Your task to perform on an android device: check data usage Image 0: 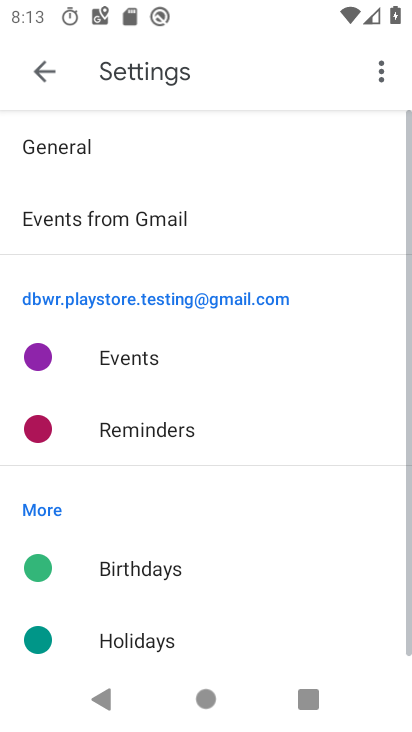
Step 0: press home button
Your task to perform on an android device: check data usage Image 1: 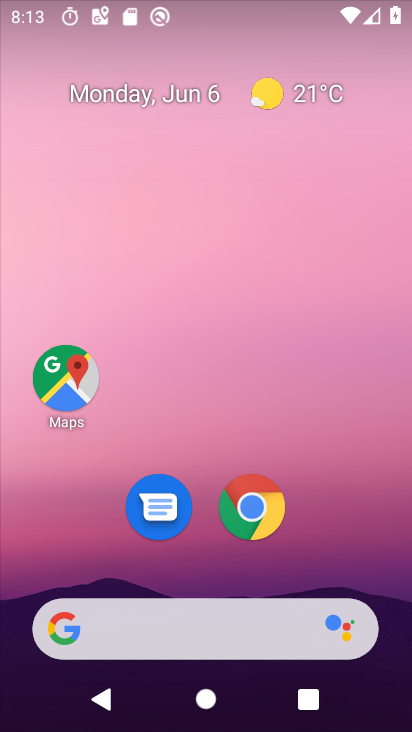
Step 1: drag from (385, 14) to (93, 714)
Your task to perform on an android device: check data usage Image 2: 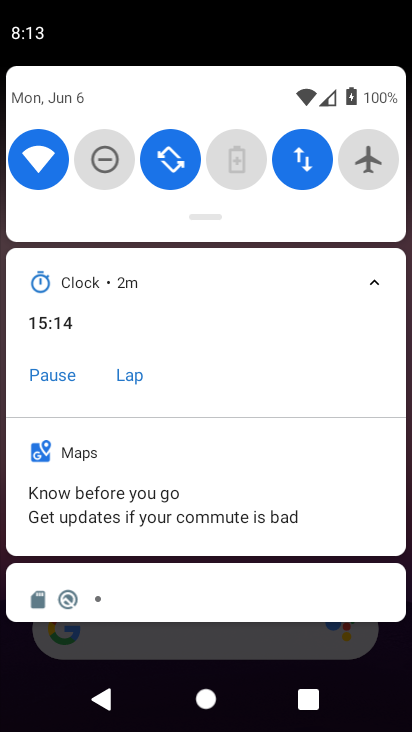
Step 2: drag from (36, 172) to (147, 448)
Your task to perform on an android device: check data usage Image 3: 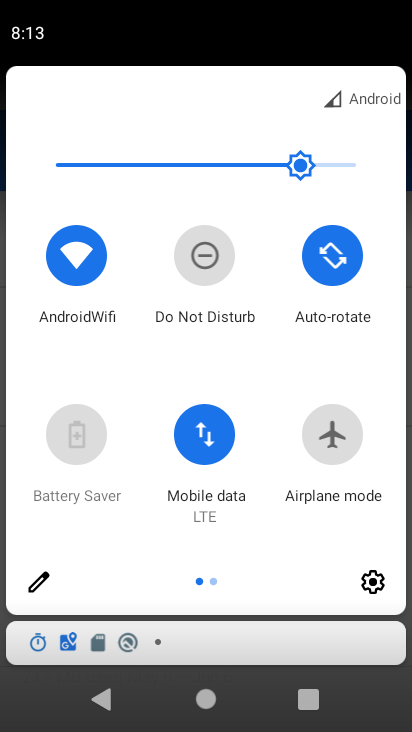
Step 3: click (213, 439)
Your task to perform on an android device: check data usage Image 4: 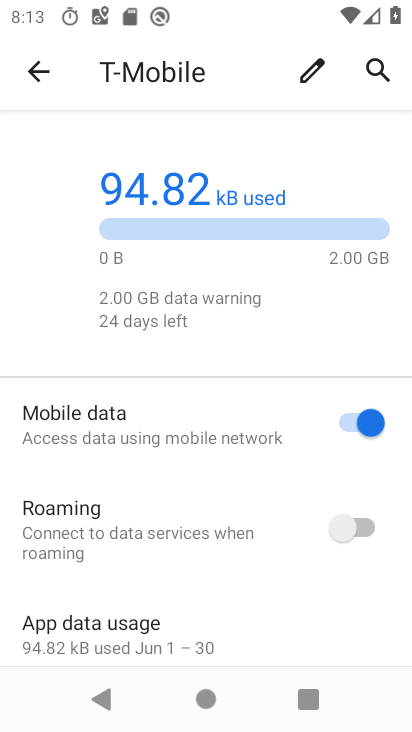
Step 4: task complete